Your task to perform on an android device: Open Yahoo.com Image 0: 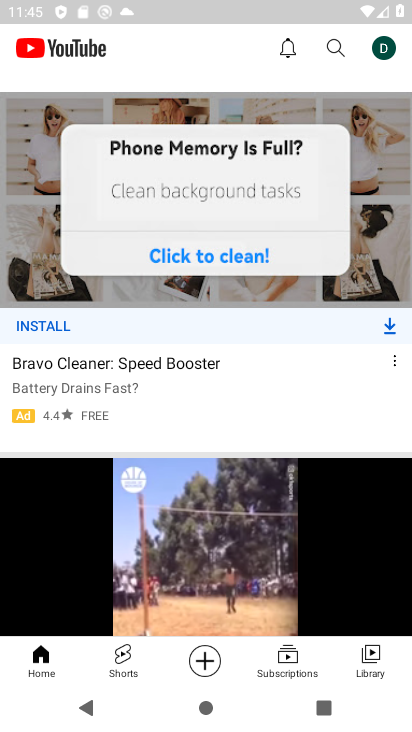
Step 0: press home button
Your task to perform on an android device: Open Yahoo.com Image 1: 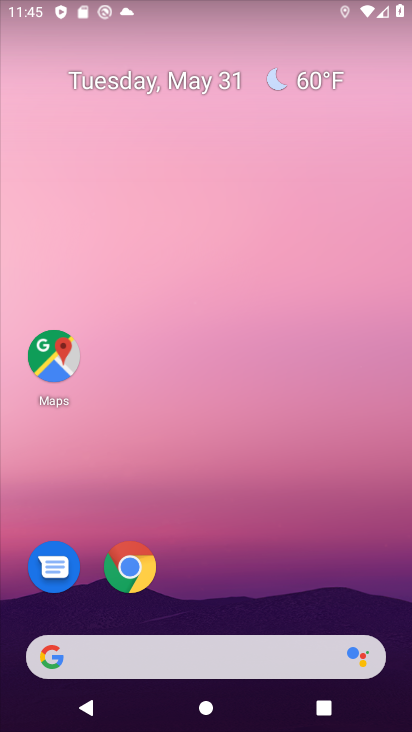
Step 1: click (144, 570)
Your task to perform on an android device: Open Yahoo.com Image 2: 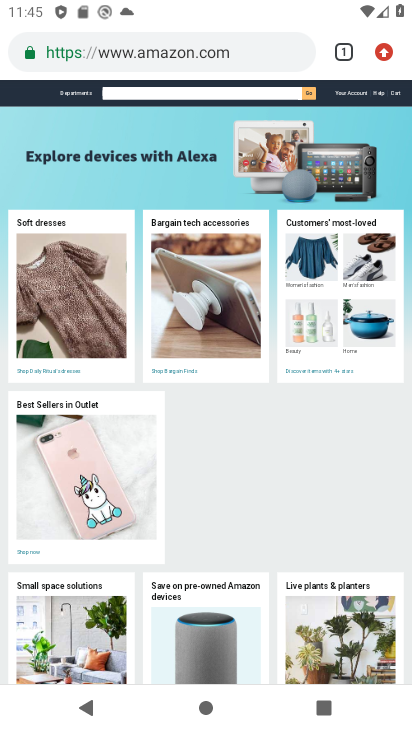
Step 2: click (183, 60)
Your task to perform on an android device: Open Yahoo.com Image 3: 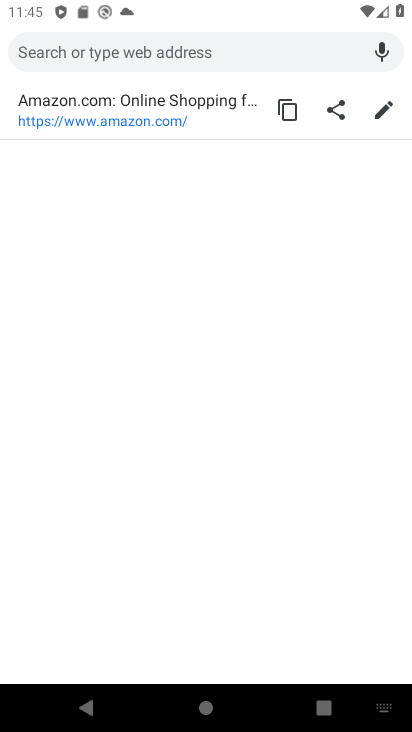
Step 3: type "yahoo.com"
Your task to perform on an android device: Open Yahoo.com Image 4: 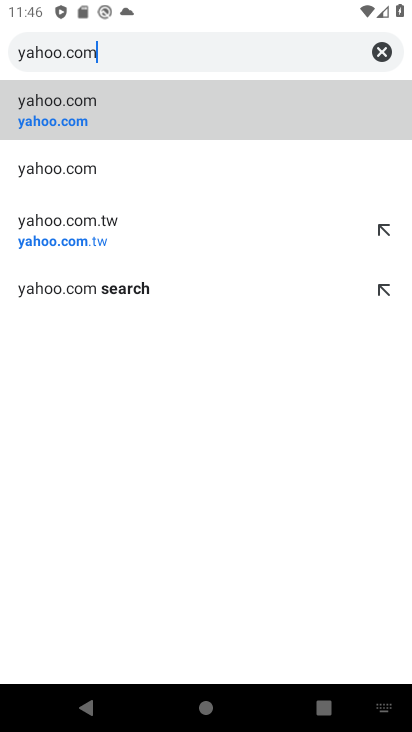
Step 4: click (175, 118)
Your task to perform on an android device: Open Yahoo.com Image 5: 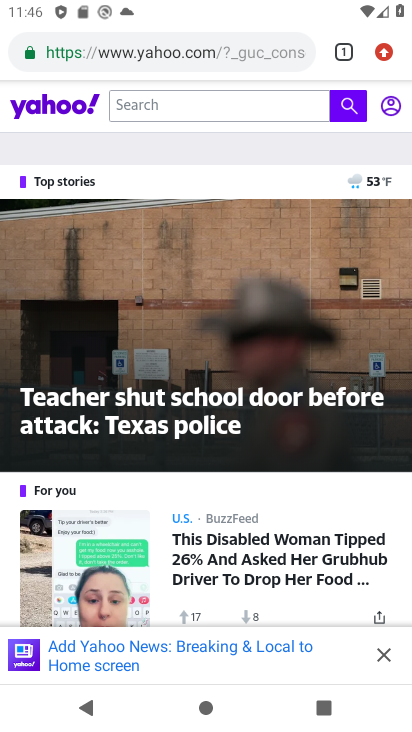
Step 5: task complete